Your task to perform on an android device: turn on notifications settings in the gmail app Image 0: 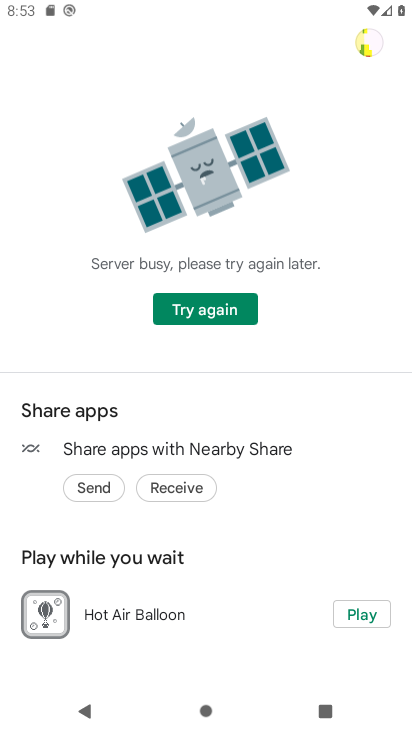
Step 0: press home button
Your task to perform on an android device: turn on notifications settings in the gmail app Image 1: 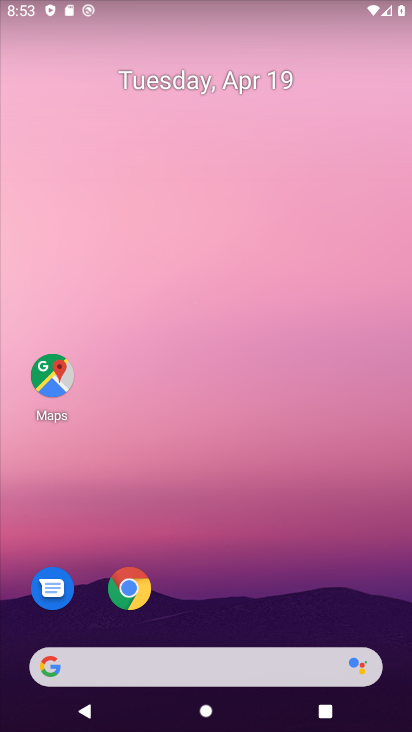
Step 1: drag from (236, 564) to (254, 38)
Your task to perform on an android device: turn on notifications settings in the gmail app Image 2: 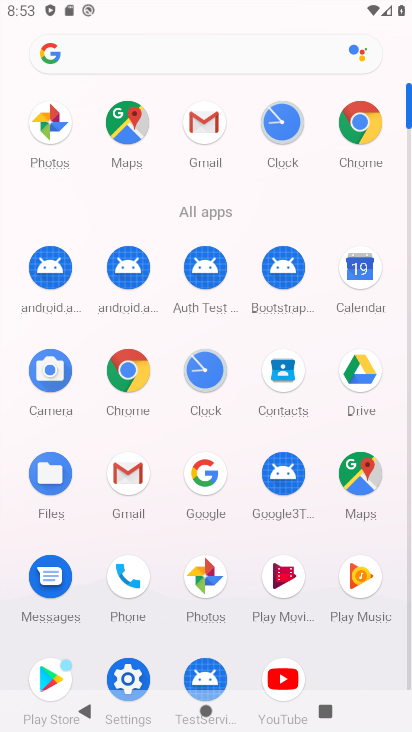
Step 2: click (202, 122)
Your task to perform on an android device: turn on notifications settings in the gmail app Image 3: 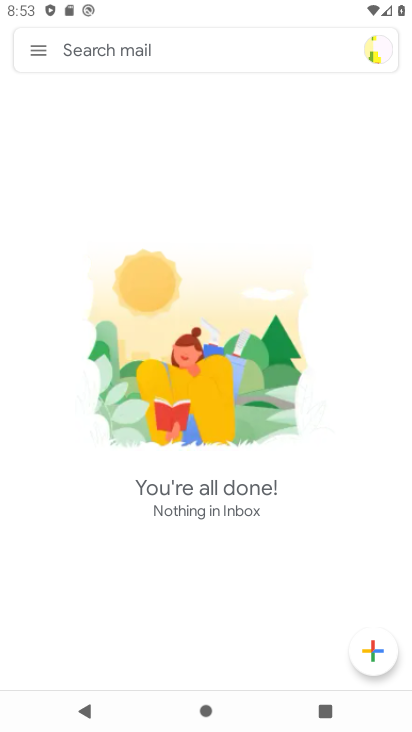
Step 3: click (36, 51)
Your task to perform on an android device: turn on notifications settings in the gmail app Image 4: 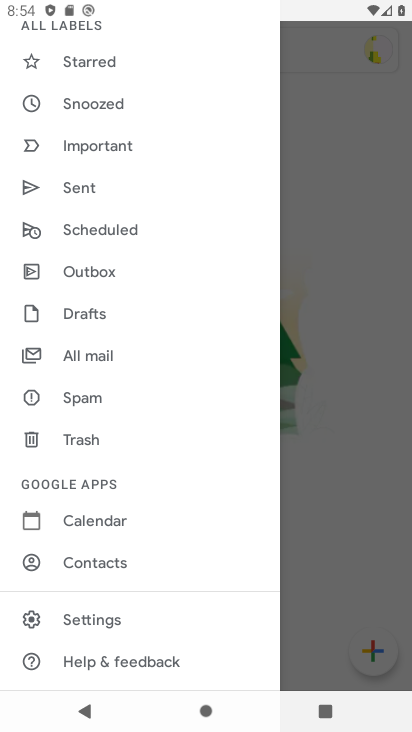
Step 4: click (102, 620)
Your task to perform on an android device: turn on notifications settings in the gmail app Image 5: 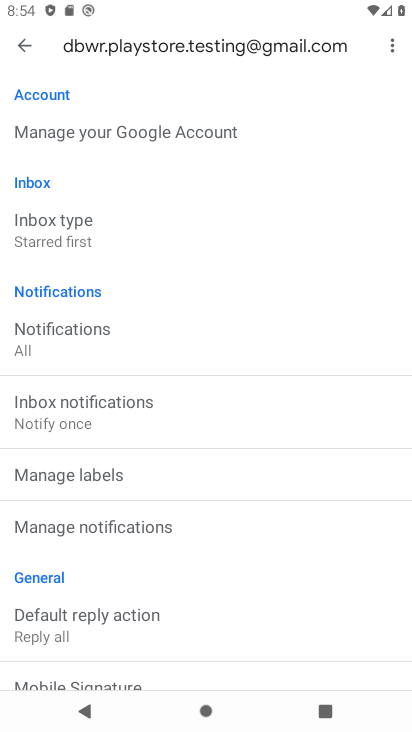
Step 5: click (128, 530)
Your task to perform on an android device: turn on notifications settings in the gmail app Image 6: 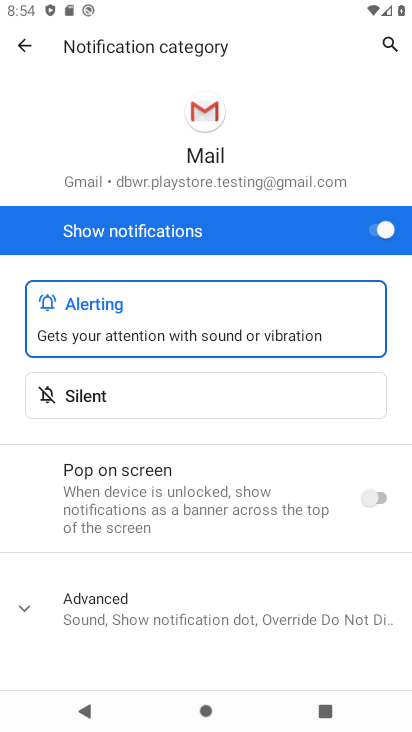
Step 6: task complete